Your task to perform on an android device: change keyboard looks Image 0: 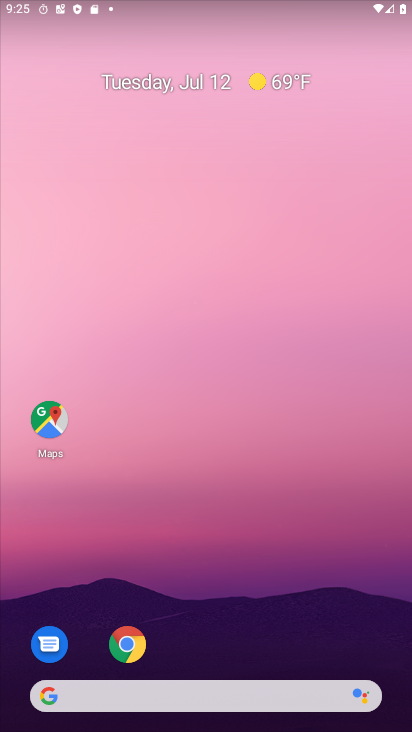
Step 0: press home button
Your task to perform on an android device: change keyboard looks Image 1: 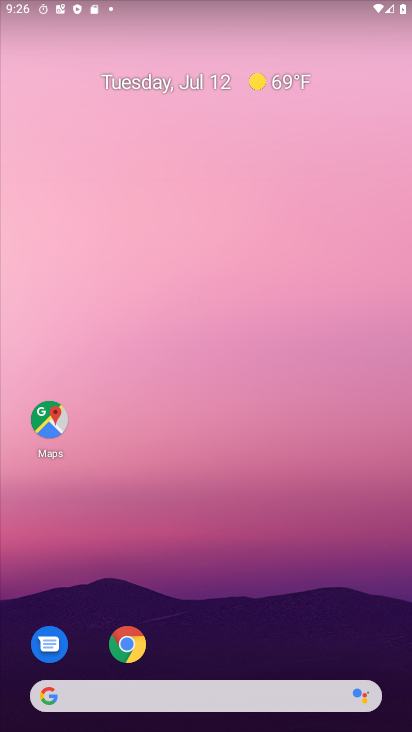
Step 1: drag from (223, 625) to (227, 51)
Your task to perform on an android device: change keyboard looks Image 2: 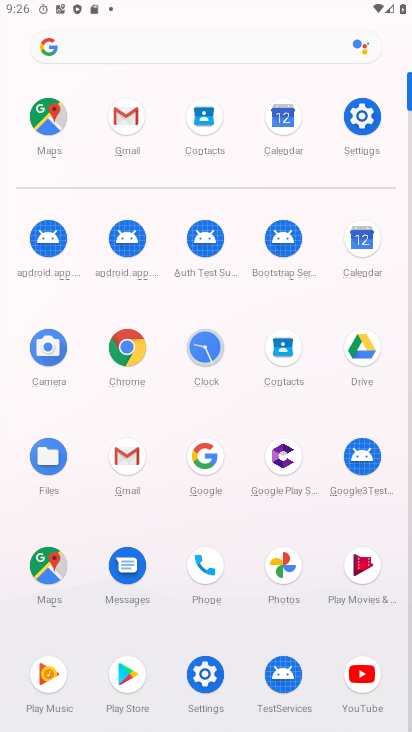
Step 2: click (367, 116)
Your task to perform on an android device: change keyboard looks Image 3: 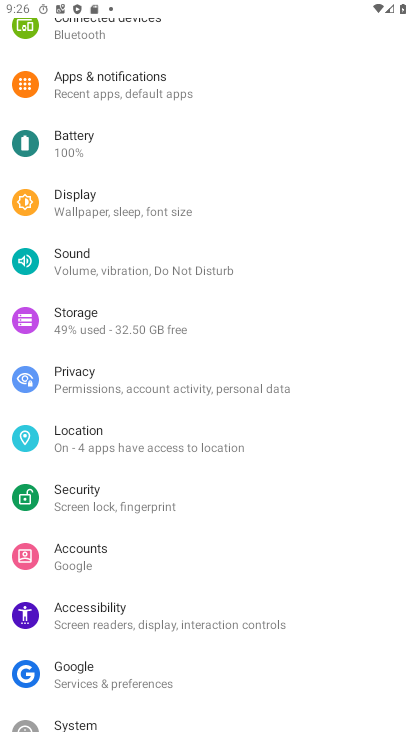
Step 3: drag from (141, 650) to (183, 109)
Your task to perform on an android device: change keyboard looks Image 4: 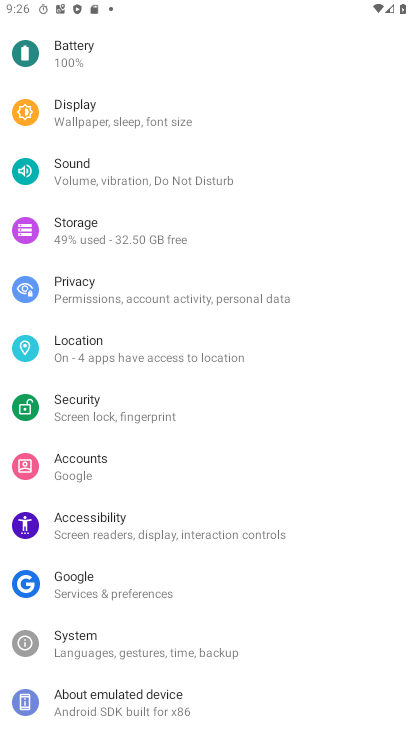
Step 4: click (114, 637)
Your task to perform on an android device: change keyboard looks Image 5: 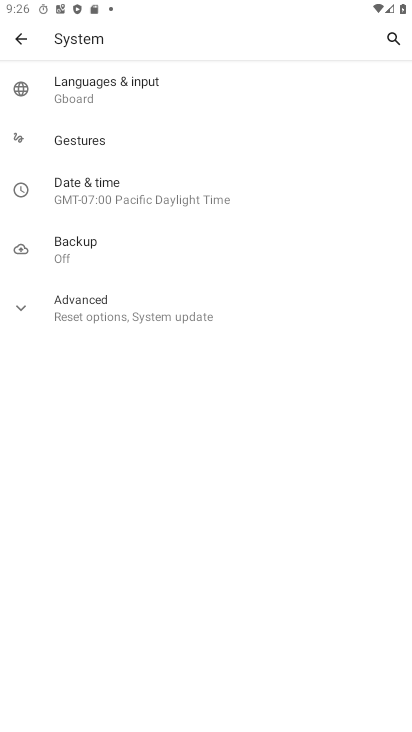
Step 5: click (22, 304)
Your task to perform on an android device: change keyboard looks Image 6: 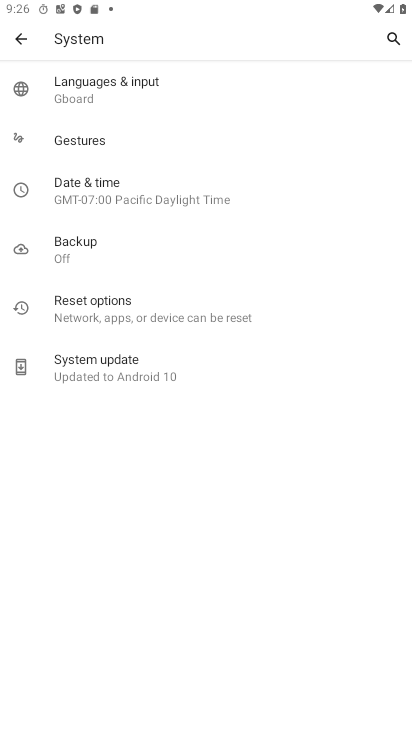
Step 6: click (120, 93)
Your task to perform on an android device: change keyboard looks Image 7: 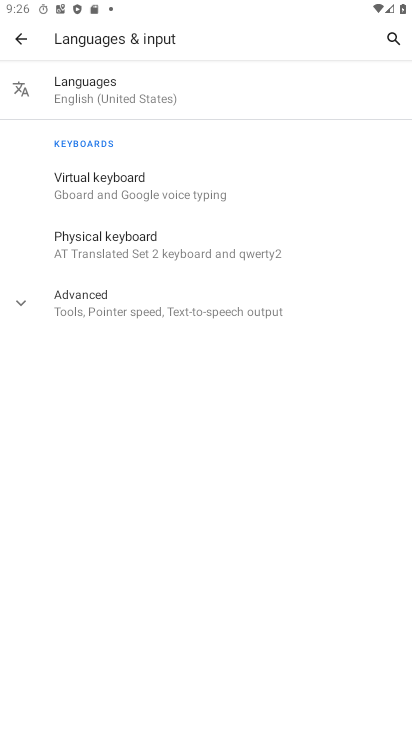
Step 7: click (163, 170)
Your task to perform on an android device: change keyboard looks Image 8: 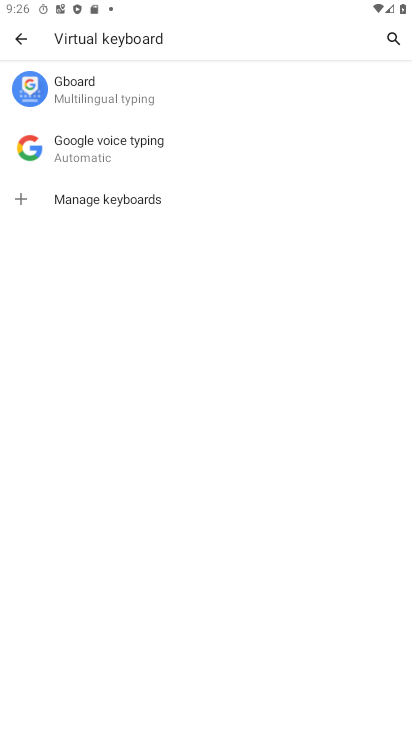
Step 8: click (104, 85)
Your task to perform on an android device: change keyboard looks Image 9: 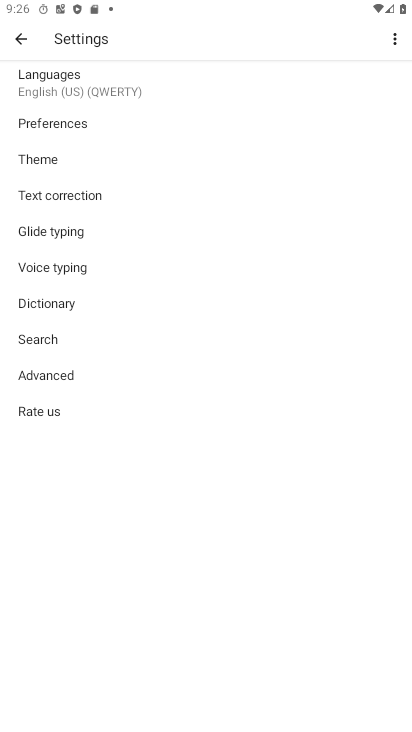
Step 9: click (70, 156)
Your task to perform on an android device: change keyboard looks Image 10: 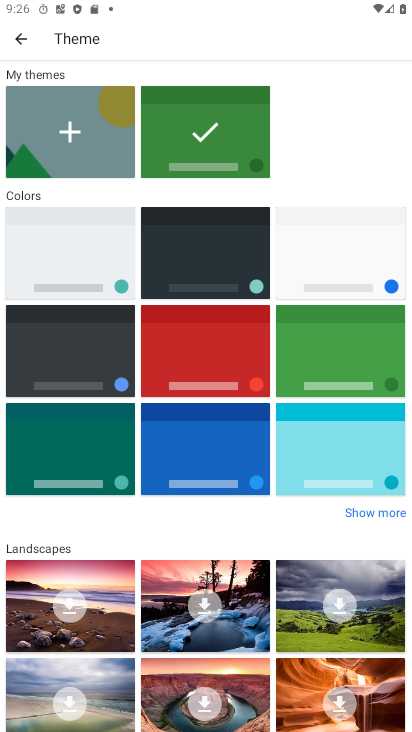
Step 10: click (68, 350)
Your task to perform on an android device: change keyboard looks Image 11: 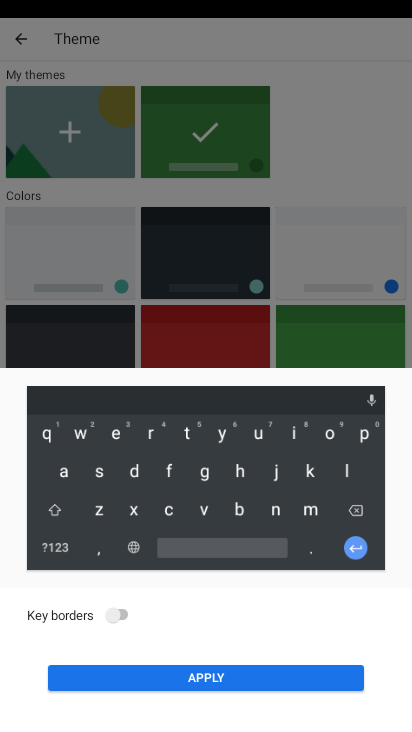
Step 11: click (208, 678)
Your task to perform on an android device: change keyboard looks Image 12: 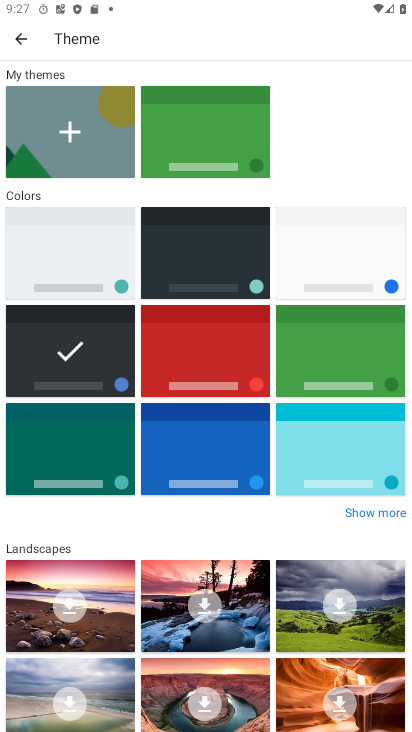
Step 12: task complete